Your task to perform on an android device: Open the calendar and show me this week's events? Image 0: 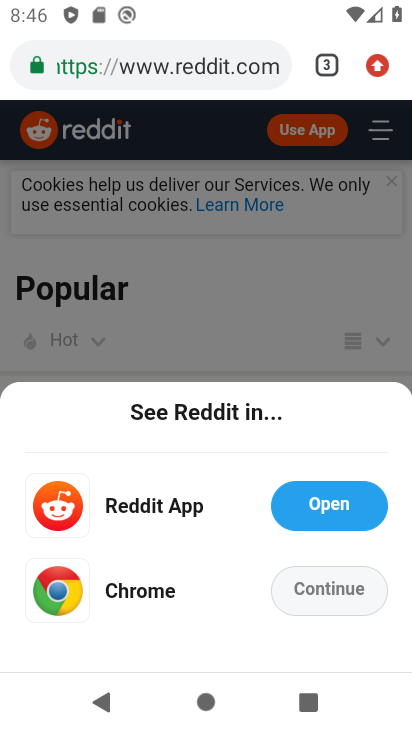
Step 0: press home button
Your task to perform on an android device: Open the calendar and show me this week's events? Image 1: 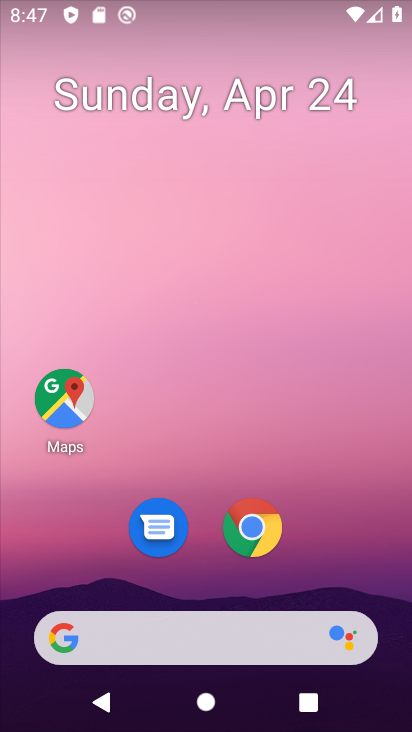
Step 1: drag from (328, 417) to (300, 55)
Your task to perform on an android device: Open the calendar and show me this week's events? Image 2: 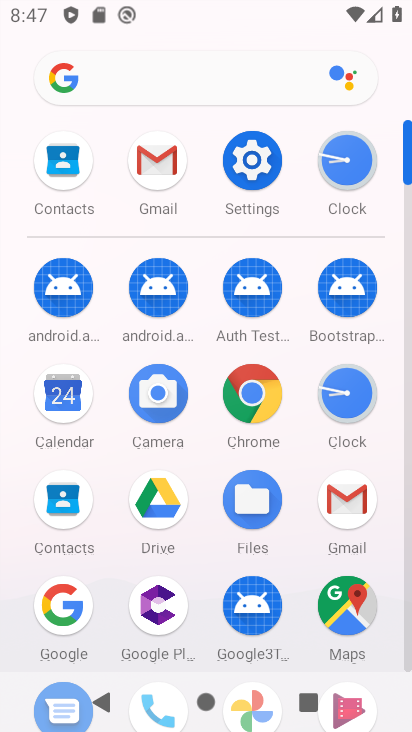
Step 2: click (71, 394)
Your task to perform on an android device: Open the calendar and show me this week's events? Image 3: 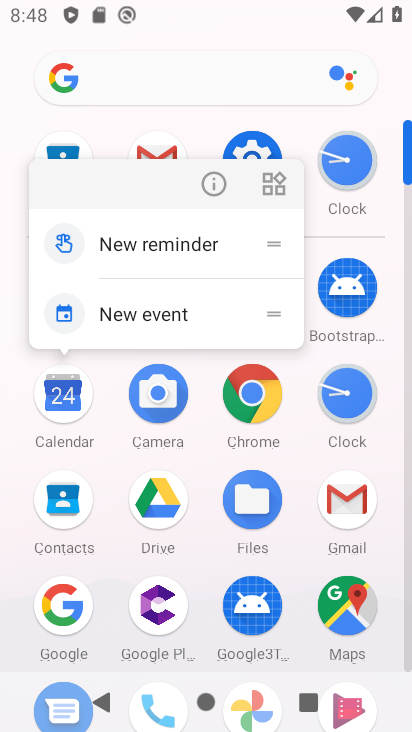
Step 3: click (59, 389)
Your task to perform on an android device: Open the calendar and show me this week's events? Image 4: 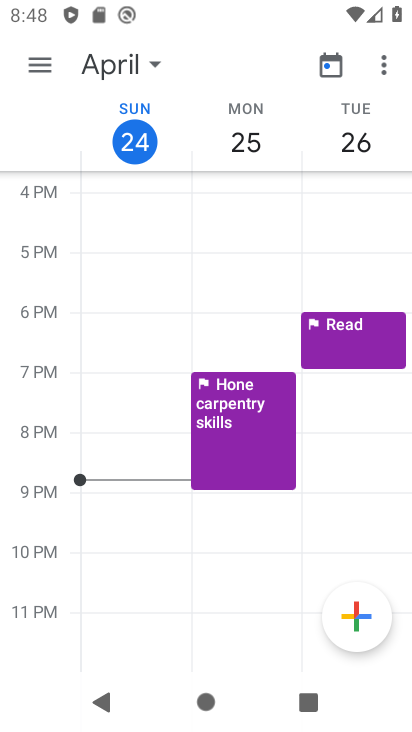
Step 4: click (44, 59)
Your task to perform on an android device: Open the calendar and show me this week's events? Image 5: 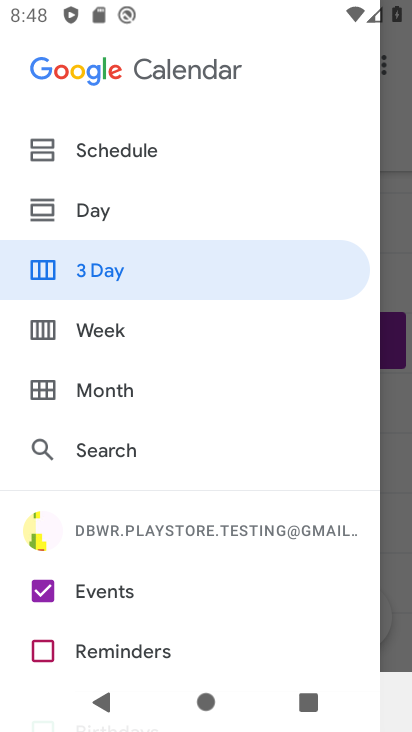
Step 5: click (84, 339)
Your task to perform on an android device: Open the calendar and show me this week's events? Image 6: 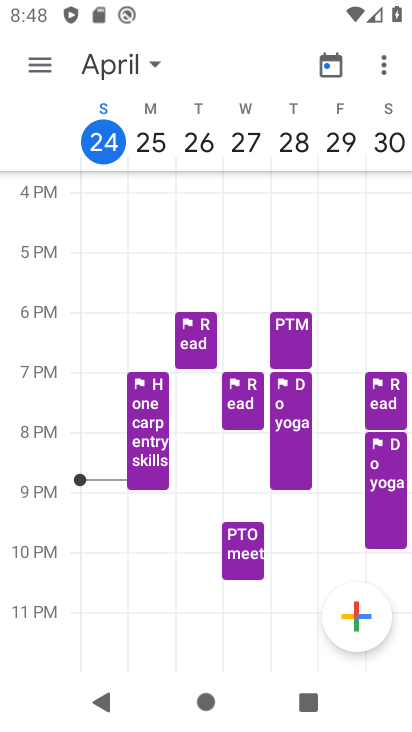
Step 6: click (138, 61)
Your task to perform on an android device: Open the calendar and show me this week's events? Image 7: 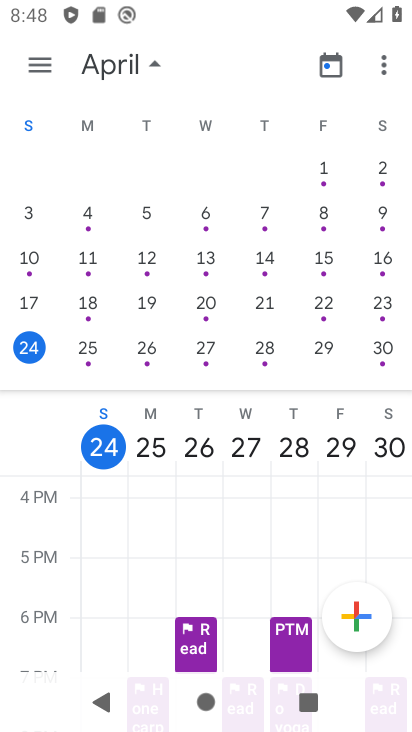
Step 7: task complete